Your task to perform on an android device: turn notification dots off Image 0: 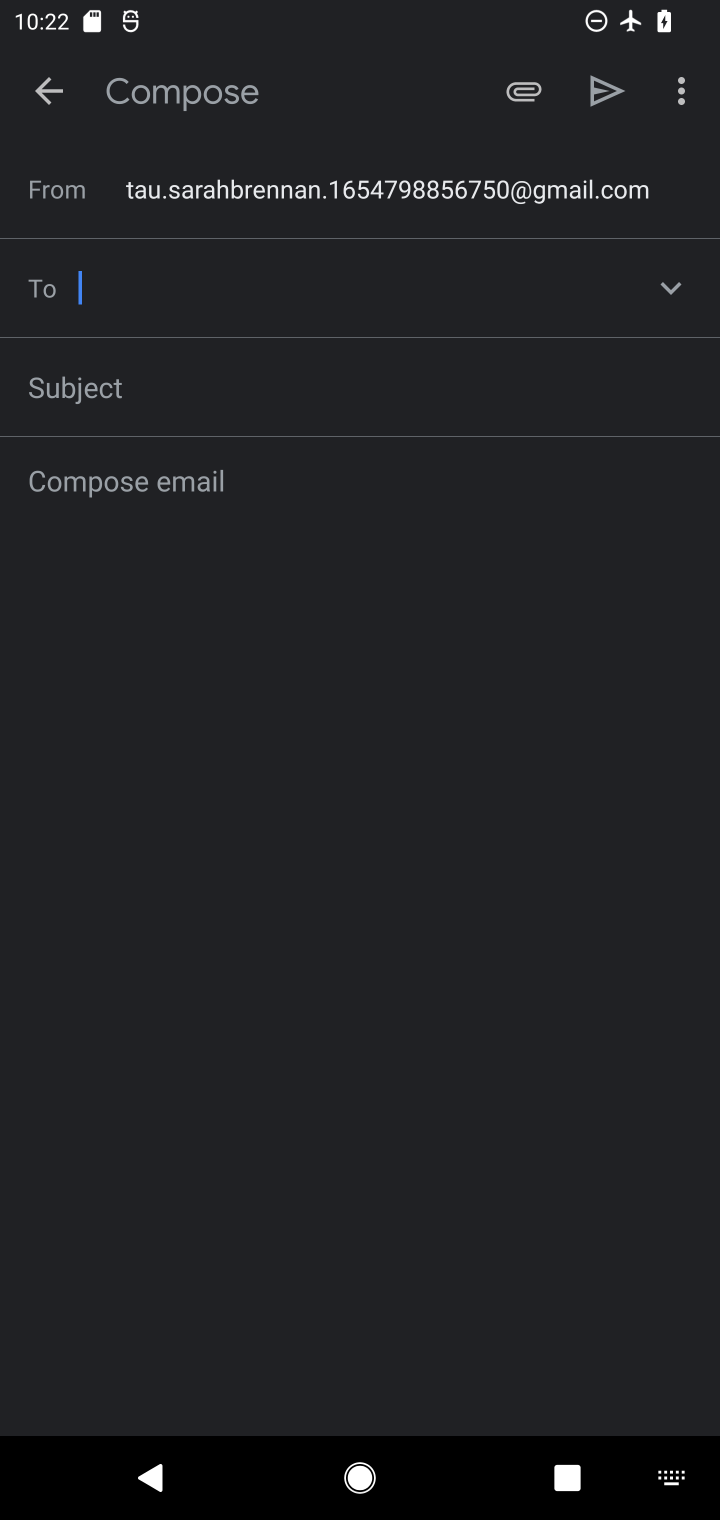
Step 0: press home button
Your task to perform on an android device: turn notification dots off Image 1: 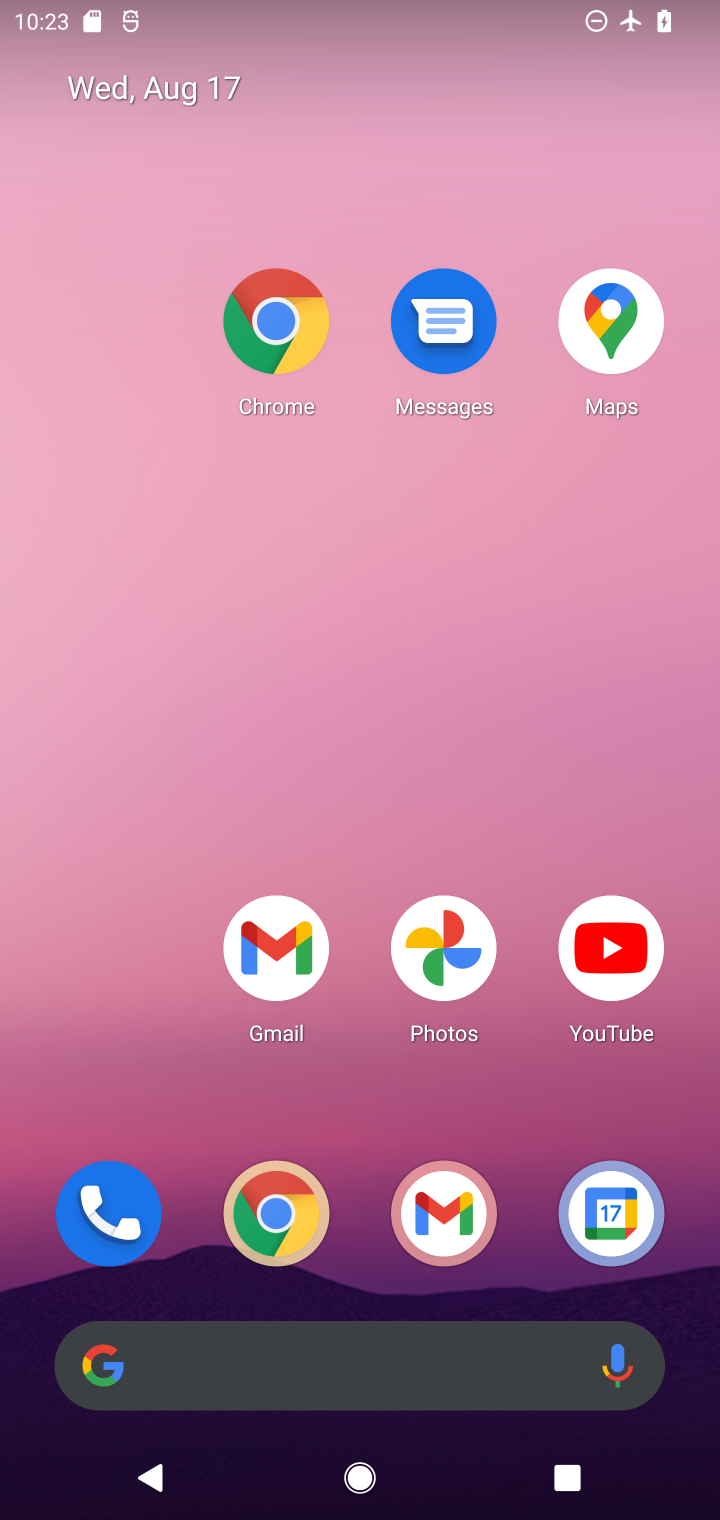
Step 1: drag from (346, 1302) to (306, 350)
Your task to perform on an android device: turn notification dots off Image 2: 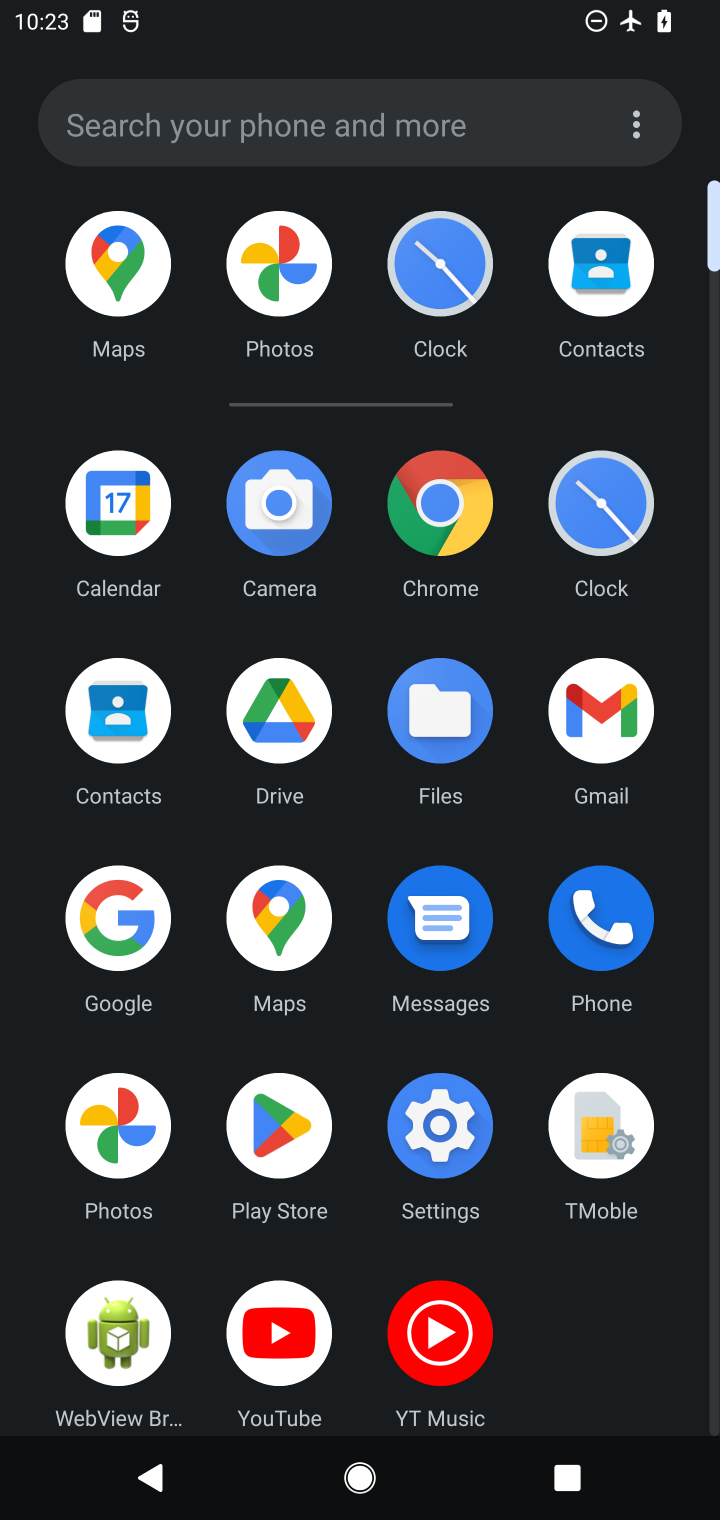
Step 2: click (451, 1106)
Your task to perform on an android device: turn notification dots off Image 3: 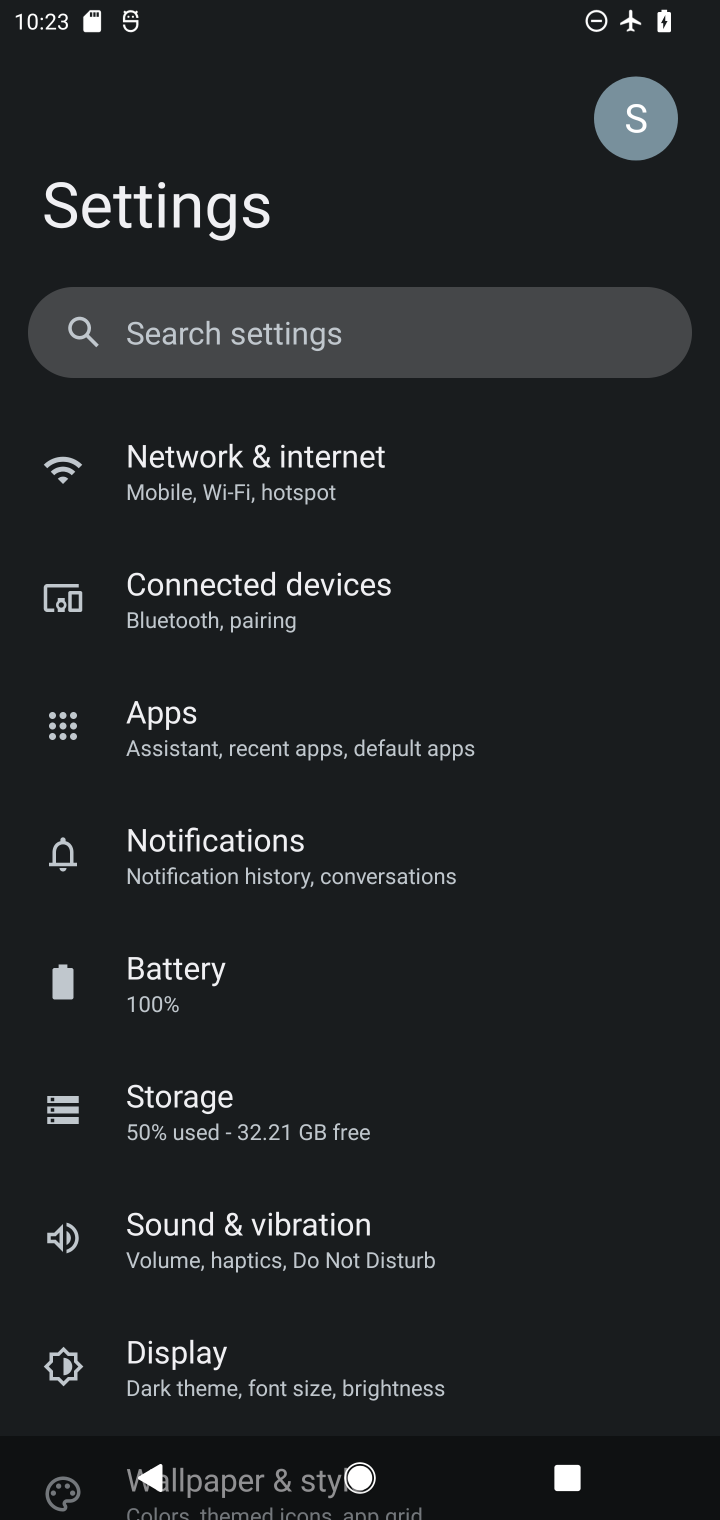
Step 3: click (373, 891)
Your task to perform on an android device: turn notification dots off Image 4: 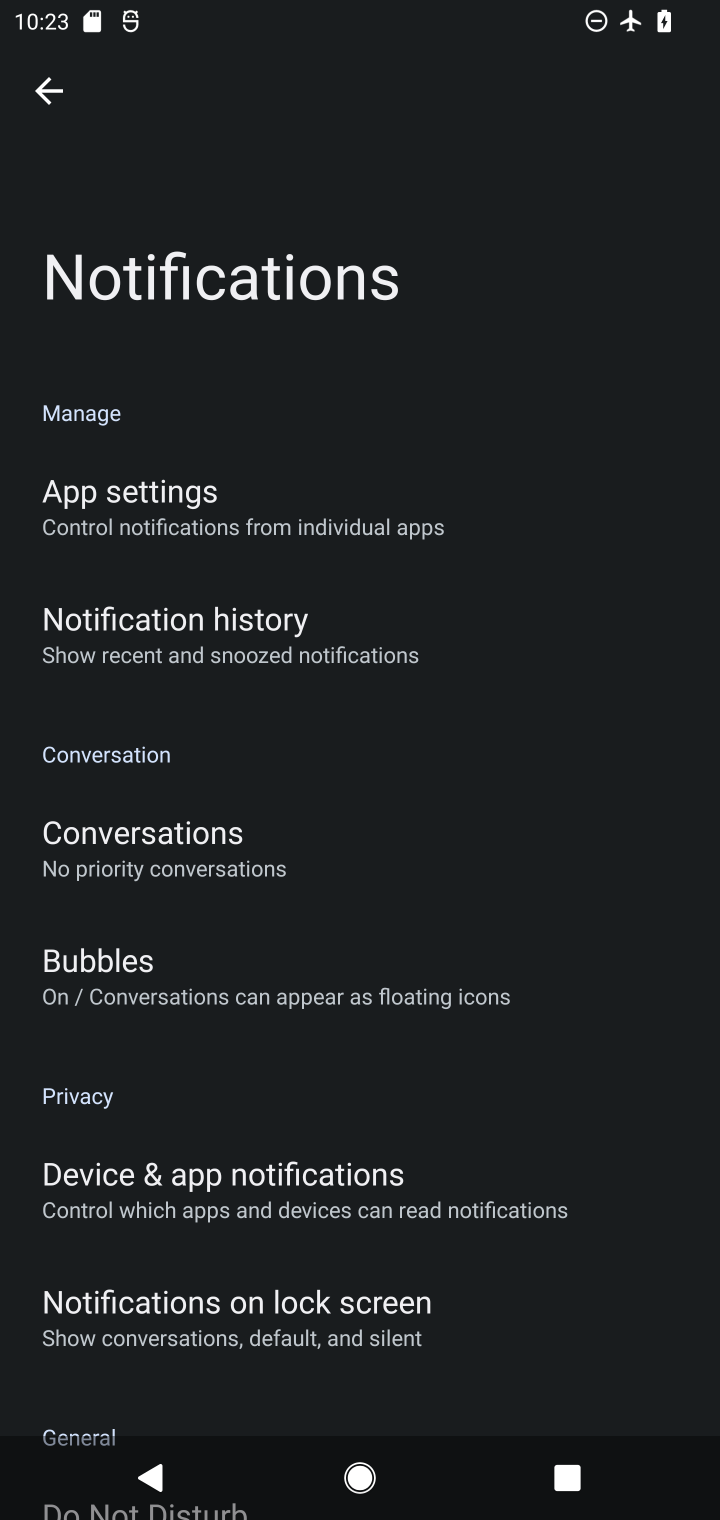
Step 4: task complete